Your task to perform on an android device: change the clock display to show seconds Image 0: 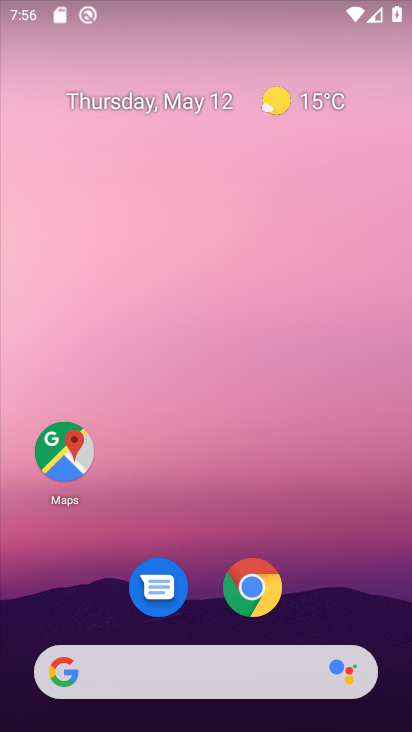
Step 0: drag from (383, 634) to (307, 84)
Your task to perform on an android device: change the clock display to show seconds Image 1: 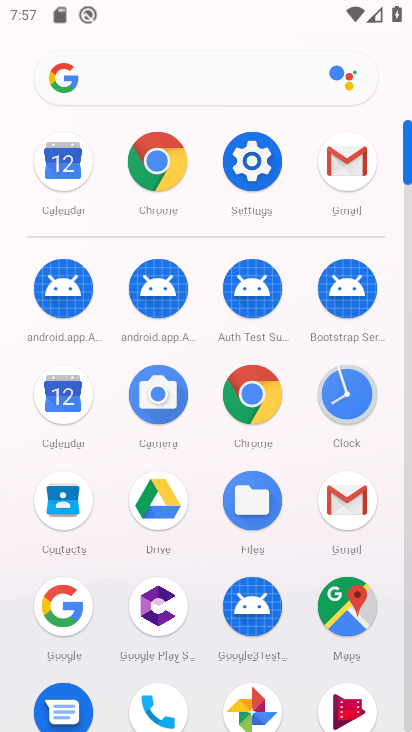
Step 1: click (346, 391)
Your task to perform on an android device: change the clock display to show seconds Image 2: 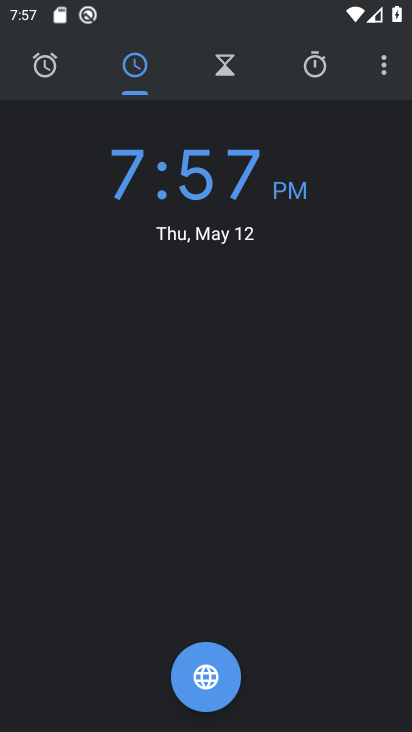
Step 2: click (381, 59)
Your task to perform on an android device: change the clock display to show seconds Image 3: 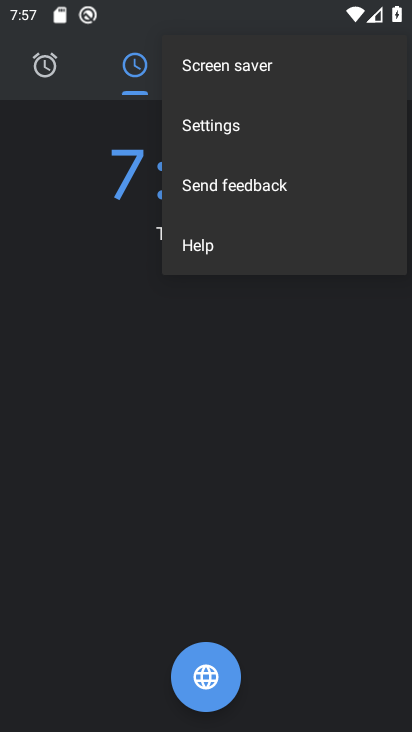
Step 3: click (234, 124)
Your task to perform on an android device: change the clock display to show seconds Image 4: 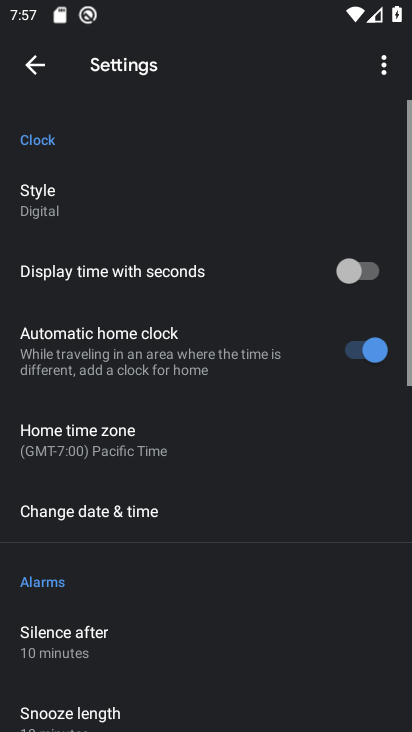
Step 4: click (339, 246)
Your task to perform on an android device: change the clock display to show seconds Image 5: 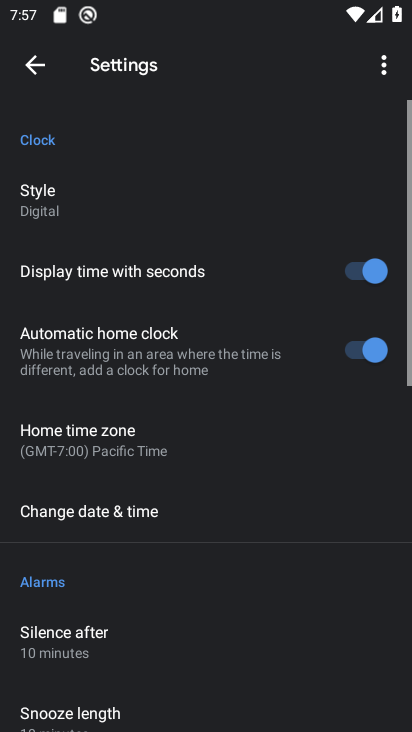
Step 5: task complete